Your task to perform on an android device: Open display settings Image 0: 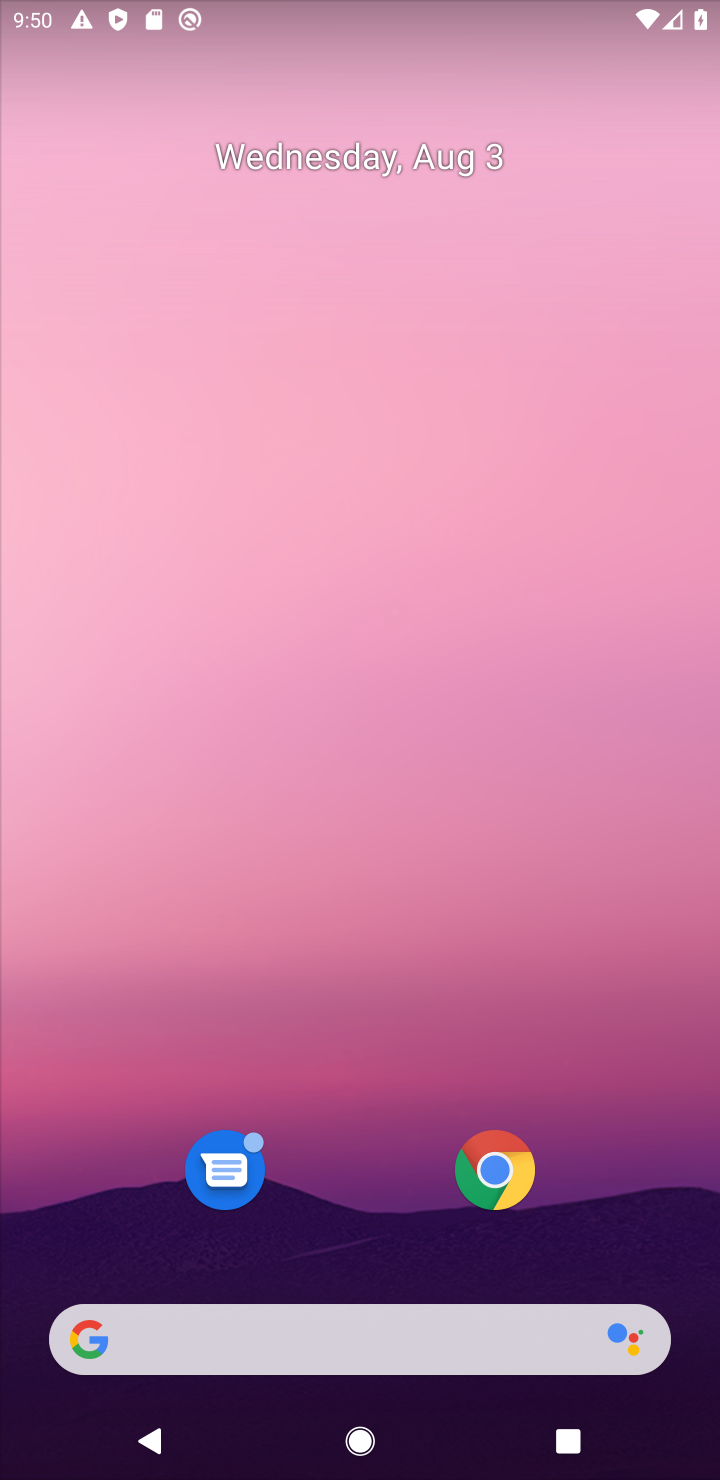
Step 0: drag from (362, 1200) to (304, 261)
Your task to perform on an android device: Open display settings Image 1: 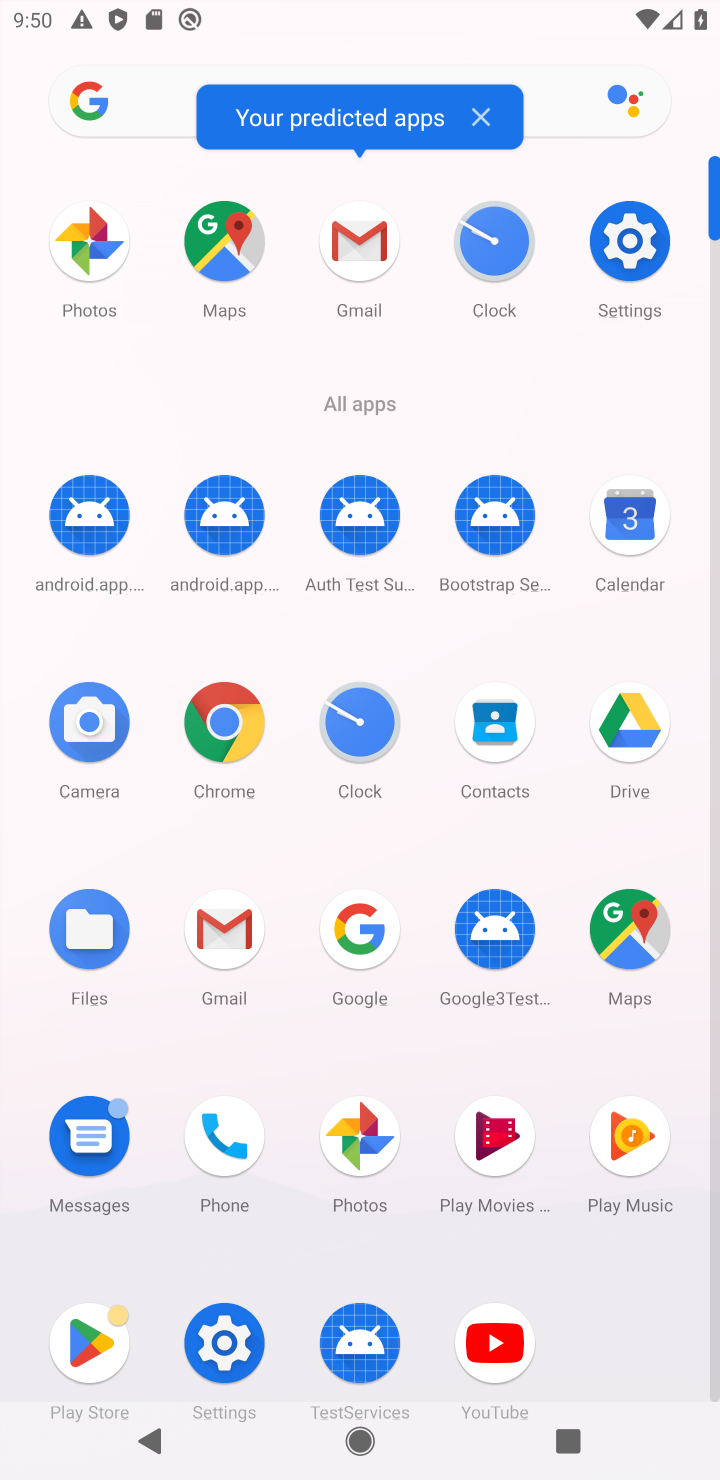
Step 1: click (631, 248)
Your task to perform on an android device: Open display settings Image 2: 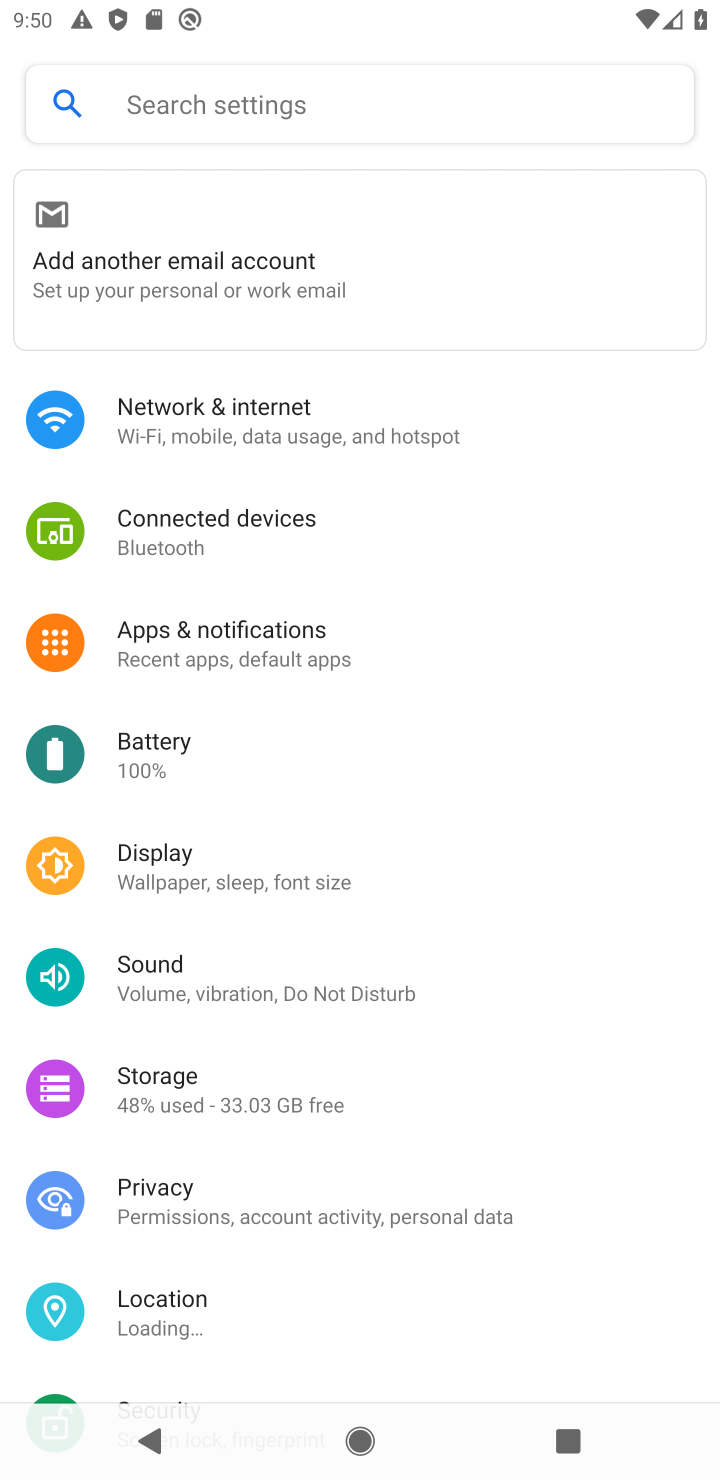
Step 2: click (313, 870)
Your task to perform on an android device: Open display settings Image 3: 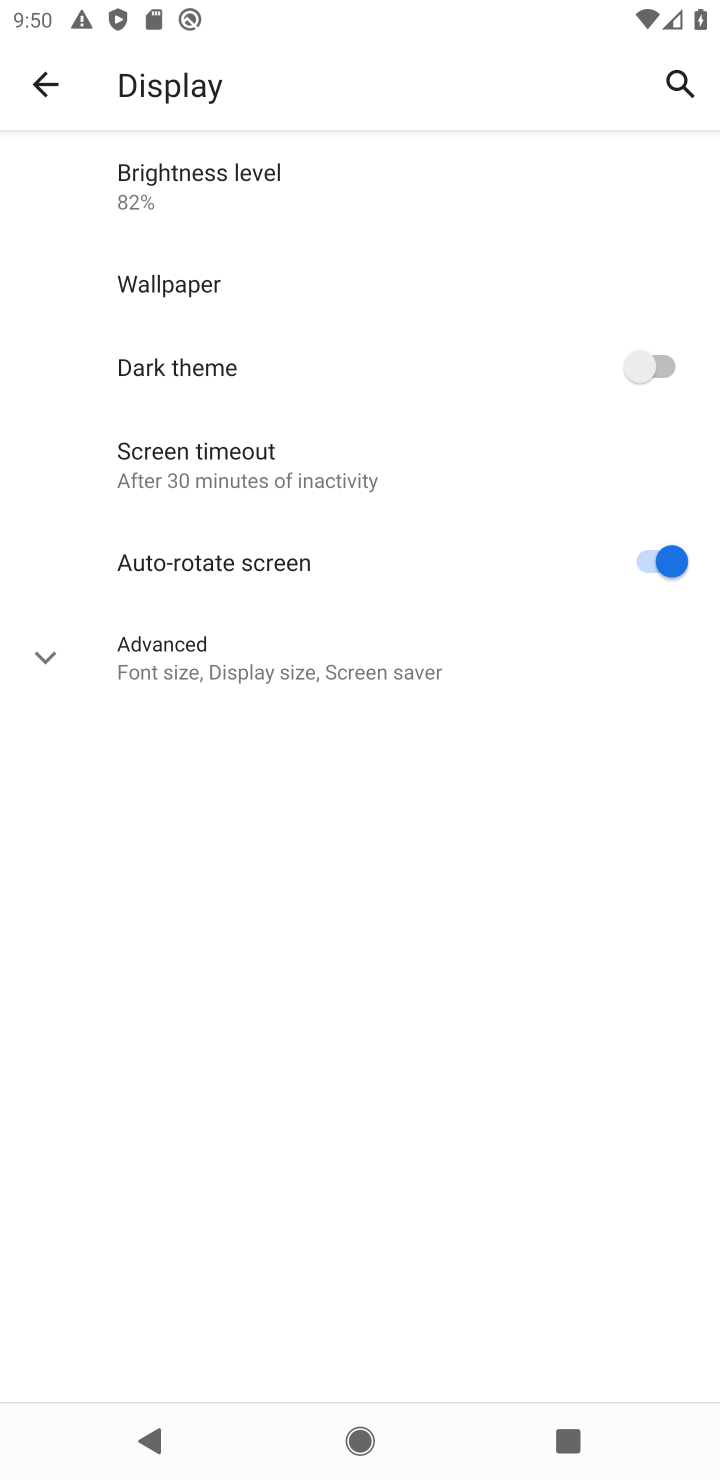
Step 3: task complete